Your task to perform on an android device: find photos in the google photos app Image 0: 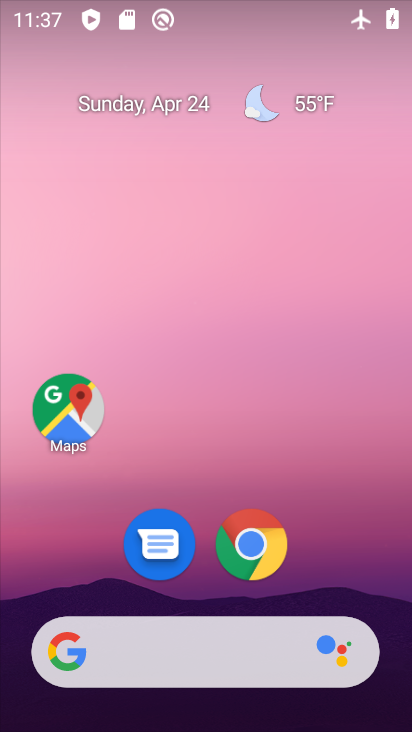
Step 0: drag from (328, 482) to (68, 89)
Your task to perform on an android device: find photos in the google photos app Image 1: 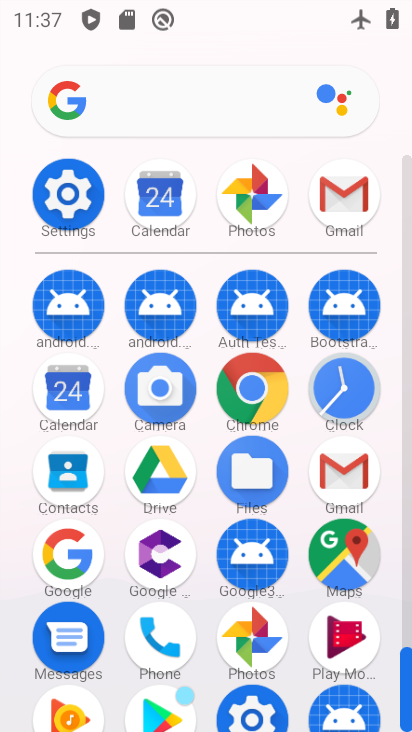
Step 1: click (262, 210)
Your task to perform on an android device: find photos in the google photos app Image 2: 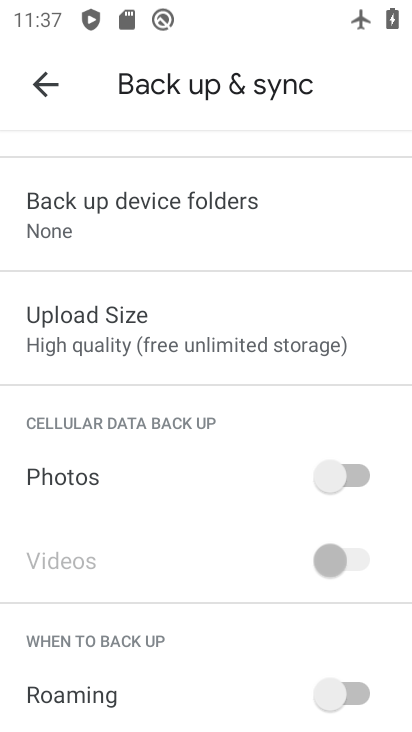
Step 2: click (28, 86)
Your task to perform on an android device: find photos in the google photos app Image 3: 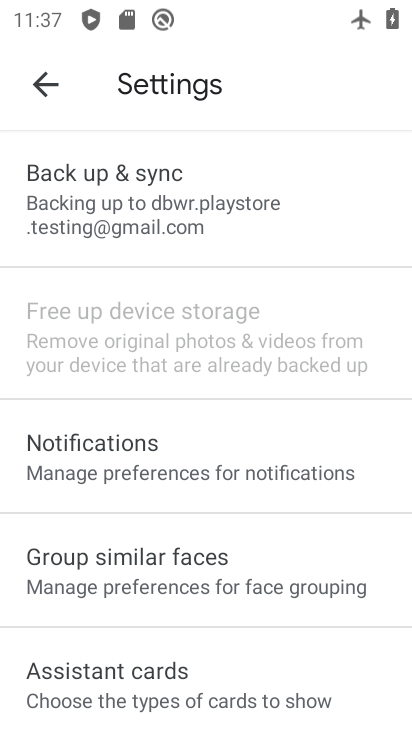
Step 3: click (44, 83)
Your task to perform on an android device: find photos in the google photos app Image 4: 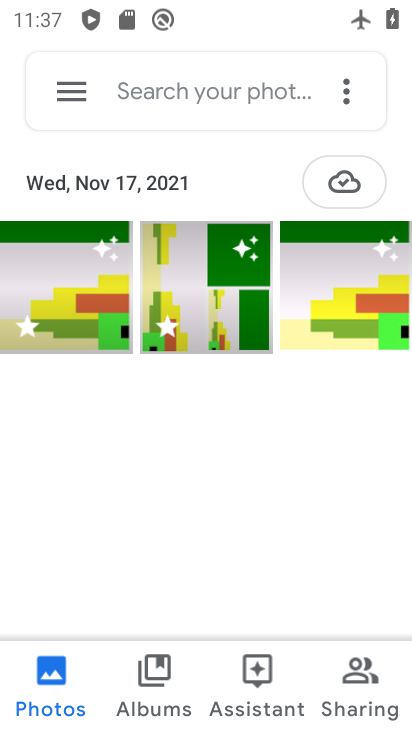
Step 4: task complete